Your task to perform on an android device: turn notification dots off Image 0: 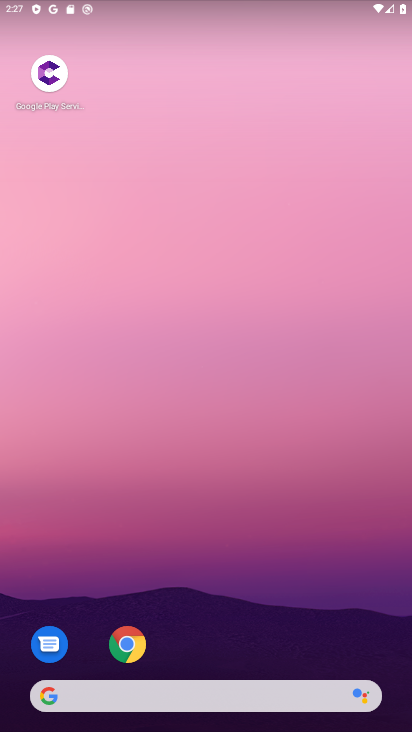
Step 0: drag from (331, 569) to (343, 92)
Your task to perform on an android device: turn notification dots off Image 1: 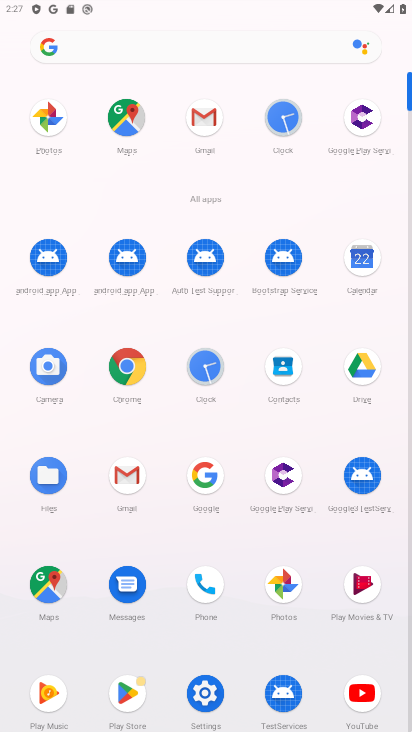
Step 1: click (203, 693)
Your task to perform on an android device: turn notification dots off Image 2: 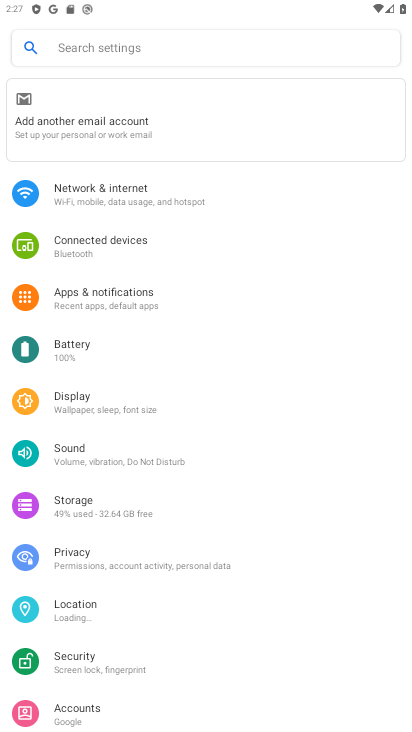
Step 2: click (147, 285)
Your task to perform on an android device: turn notification dots off Image 3: 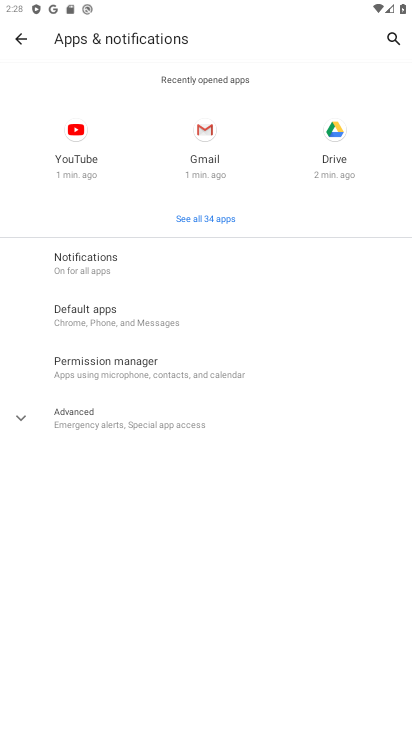
Step 3: task complete